Your task to perform on an android device: What's the weather going to be tomorrow? Image 0: 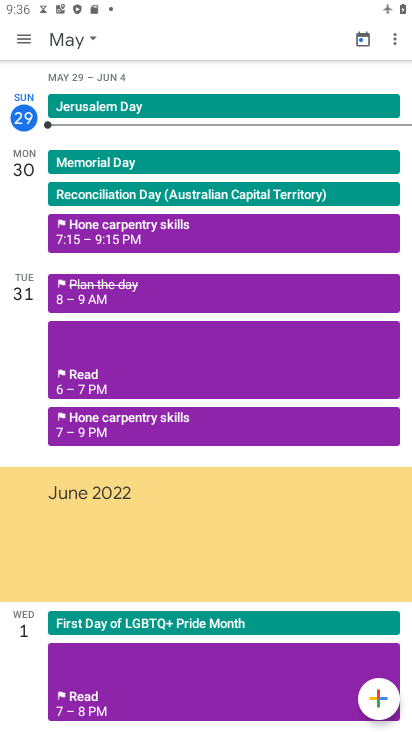
Step 0: press home button
Your task to perform on an android device: What's the weather going to be tomorrow? Image 1: 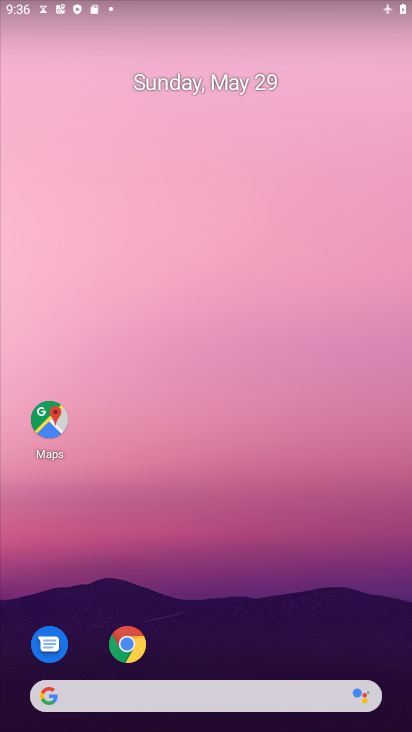
Step 1: drag from (240, 622) to (294, 147)
Your task to perform on an android device: What's the weather going to be tomorrow? Image 2: 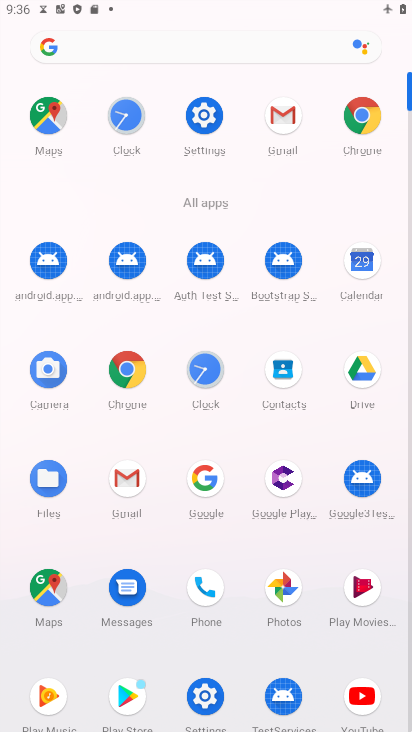
Step 2: click (121, 369)
Your task to perform on an android device: What's the weather going to be tomorrow? Image 3: 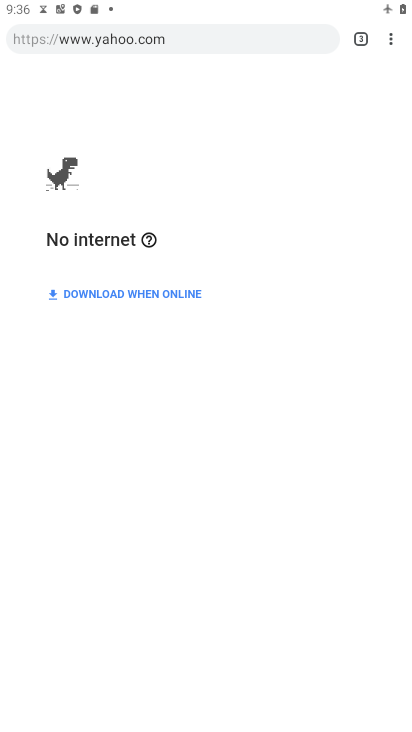
Step 3: click (394, 32)
Your task to perform on an android device: What's the weather going to be tomorrow? Image 4: 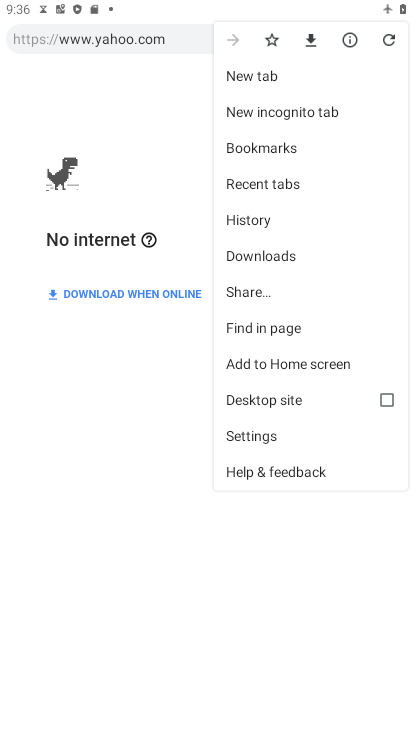
Step 4: click (272, 78)
Your task to perform on an android device: What's the weather going to be tomorrow? Image 5: 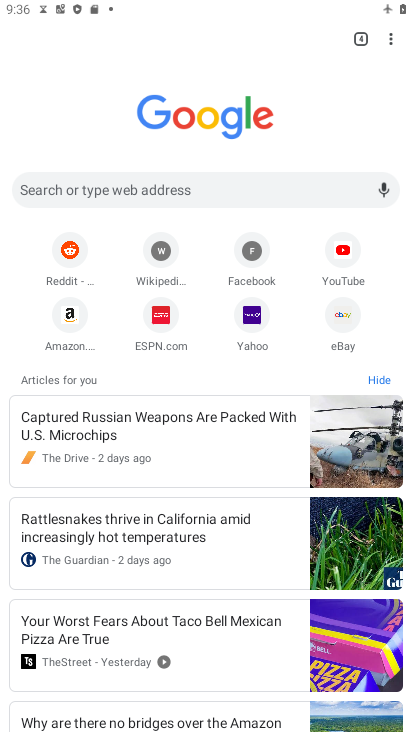
Step 5: click (172, 191)
Your task to perform on an android device: What's the weather going to be tomorrow? Image 6: 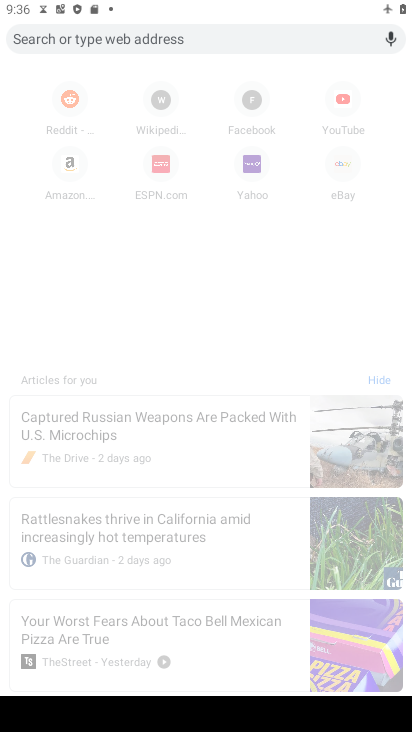
Step 6: type "What's the weather going to be tomorrow?"
Your task to perform on an android device: What's the weather going to be tomorrow? Image 7: 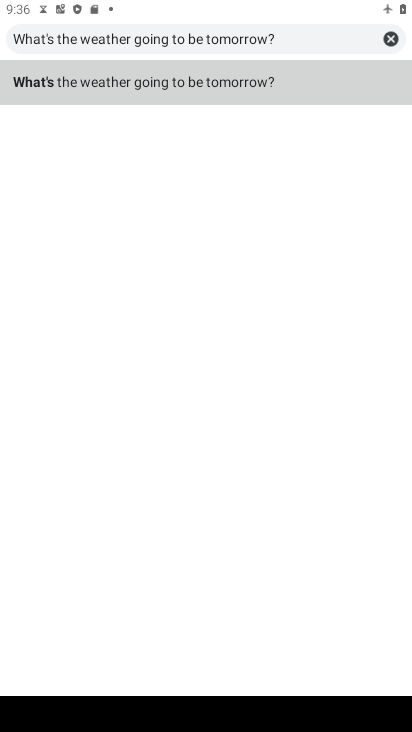
Step 7: click (218, 77)
Your task to perform on an android device: What's the weather going to be tomorrow? Image 8: 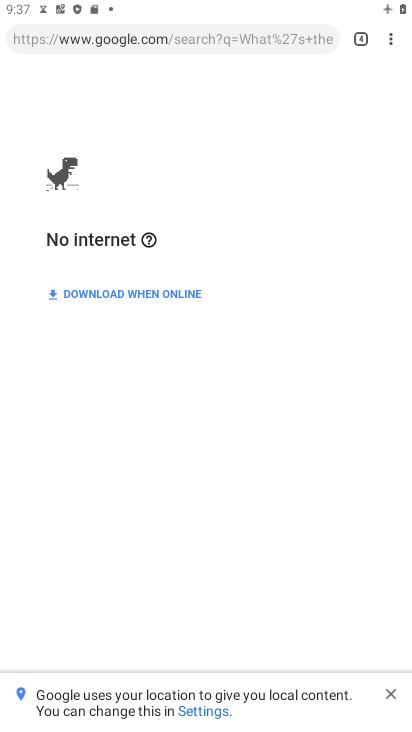
Step 8: task complete